Your task to perform on an android device: read, delete, or share a saved page in the chrome app Image 0: 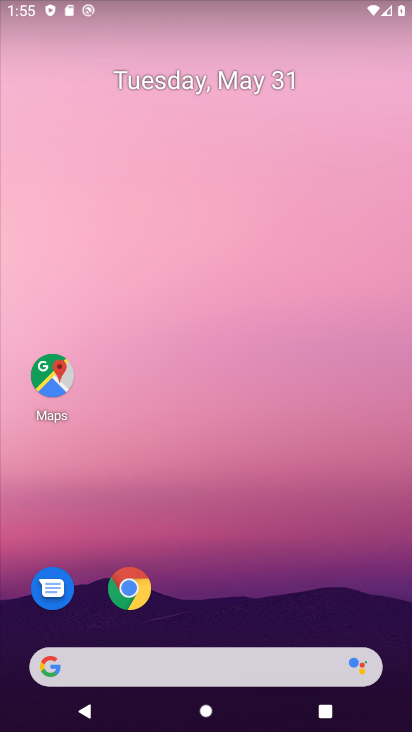
Step 0: click (127, 606)
Your task to perform on an android device: read, delete, or share a saved page in the chrome app Image 1: 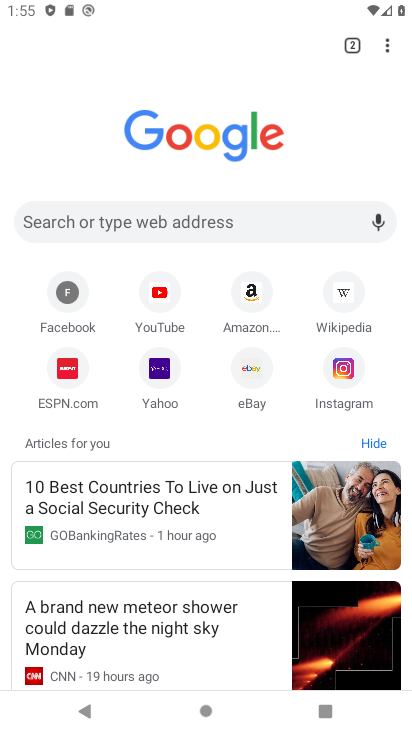
Step 1: click (392, 46)
Your task to perform on an android device: read, delete, or share a saved page in the chrome app Image 2: 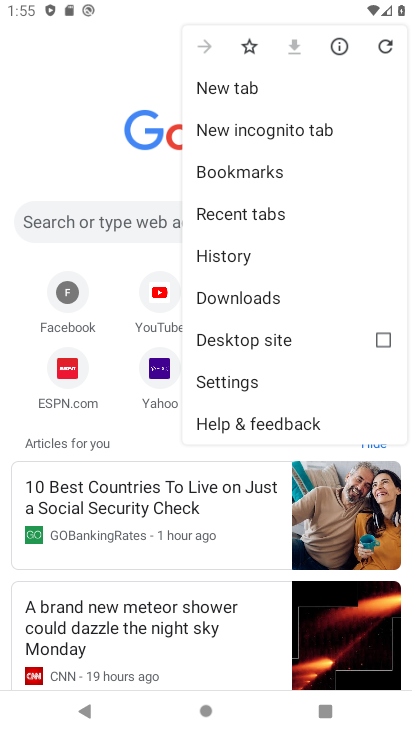
Step 2: click (252, 175)
Your task to perform on an android device: read, delete, or share a saved page in the chrome app Image 3: 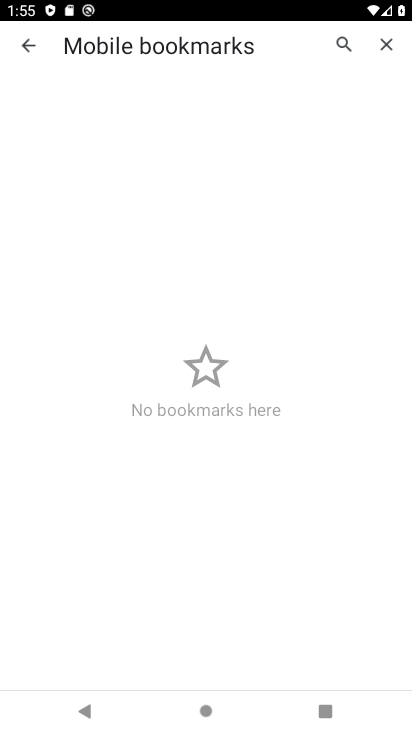
Step 3: task complete